Your task to perform on an android device: Open network settings Image 0: 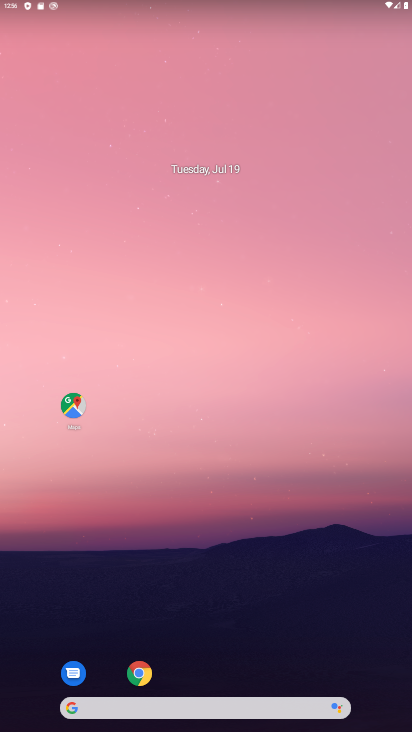
Step 0: drag from (195, 706) to (173, 251)
Your task to perform on an android device: Open network settings Image 1: 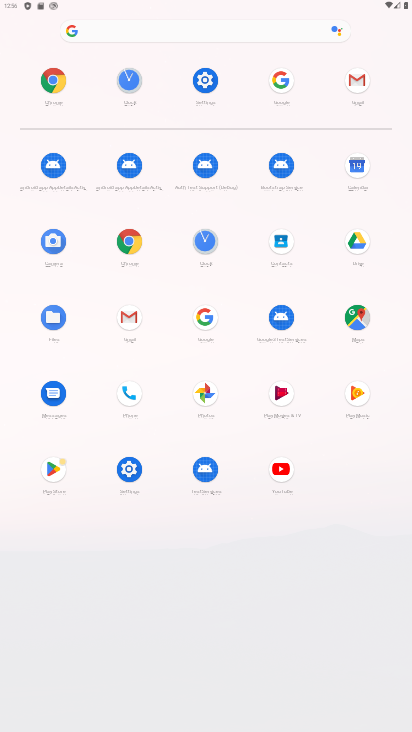
Step 1: click (128, 471)
Your task to perform on an android device: Open network settings Image 2: 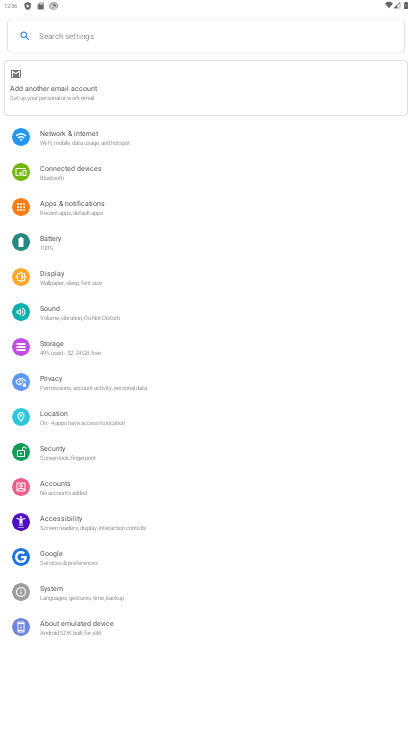
Step 2: click (55, 133)
Your task to perform on an android device: Open network settings Image 3: 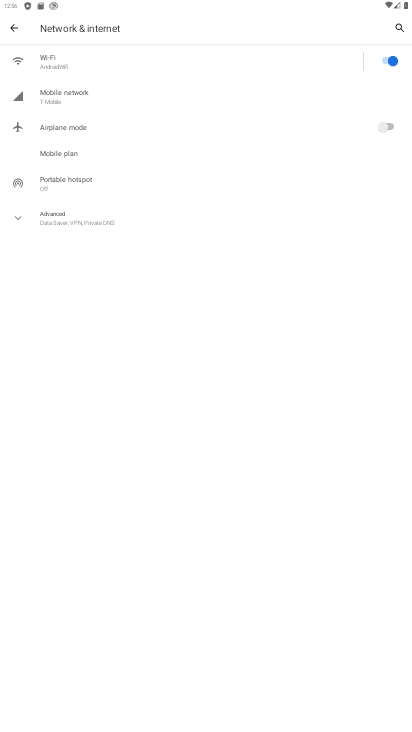
Step 3: click (80, 103)
Your task to perform on an android device: Open network settings Image 4: 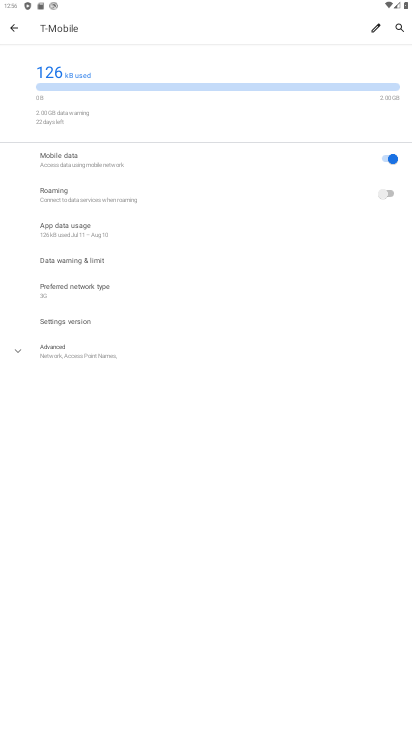
Step 4: task complete